Your task to perform on an android device: Open Amazon Image 0: 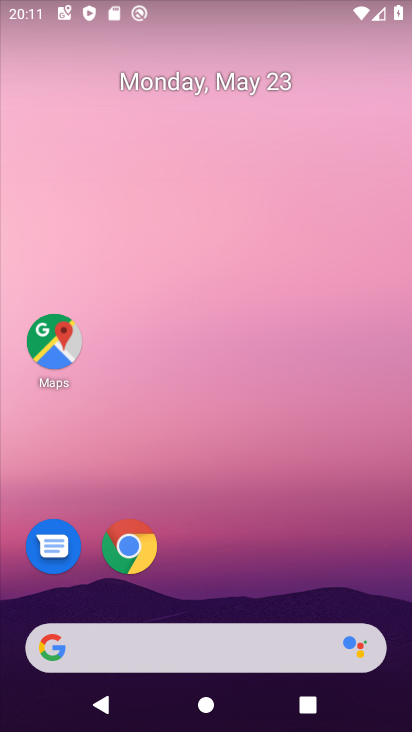
Step 0: drag from (389, 580) to (372, 238)
Your task to perform on an android device: Open Amazon Image 1: 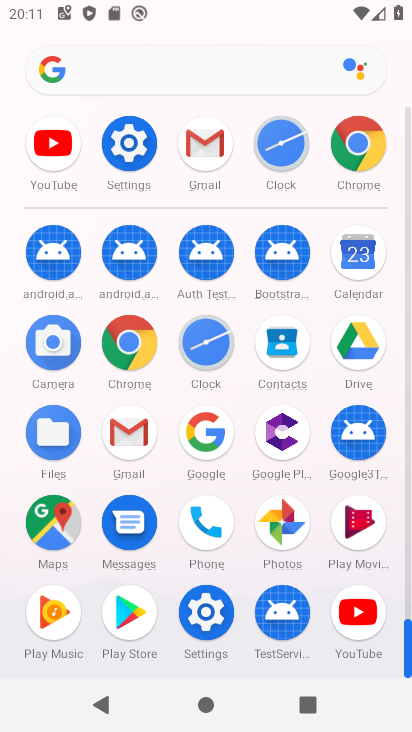
Step 1: click (133, 359)
Your task to perform on an android device: Open Amazon Image 2: 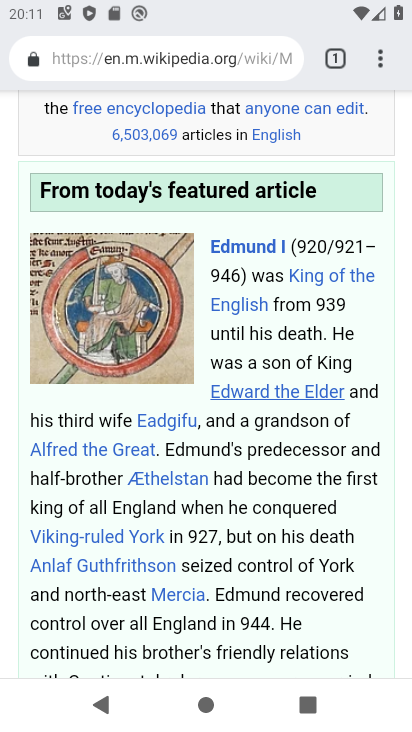
Step 2: press back button
Your task to perform on an android device: Open Amazon Image 3: 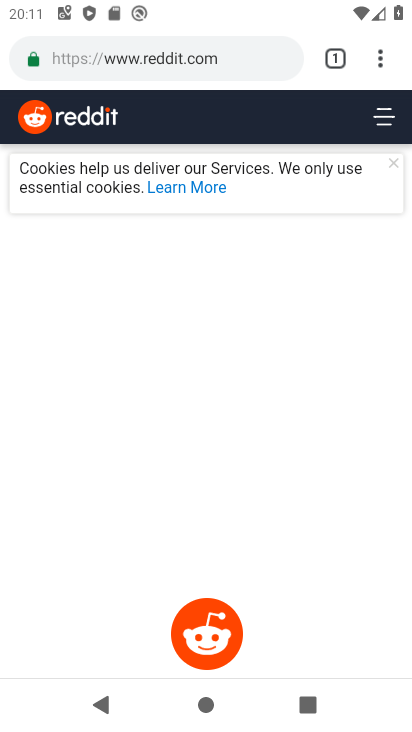
Step 3: press back button
Your task to perform on an android device: Open Amazon Image 4: 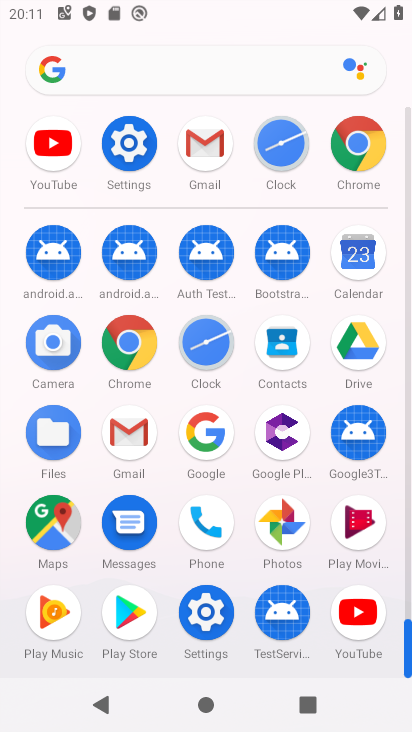
Step 4: click (137, 353)
Your task to perform on an android device: Open Amazon Image 5: 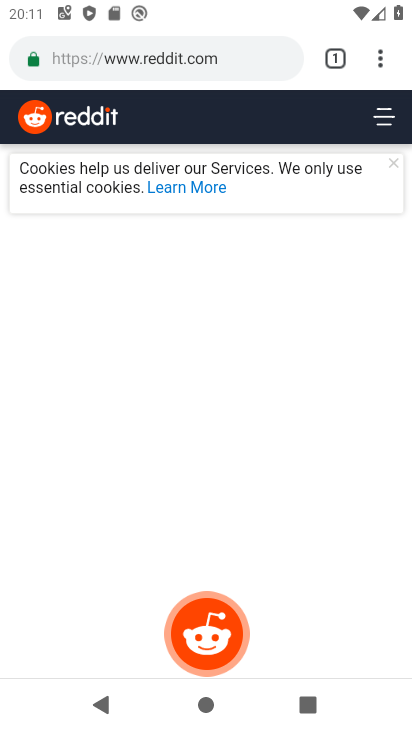
Step 5: click (202, 49)
Your task to perform on an android device: Open Amazon Image 6: 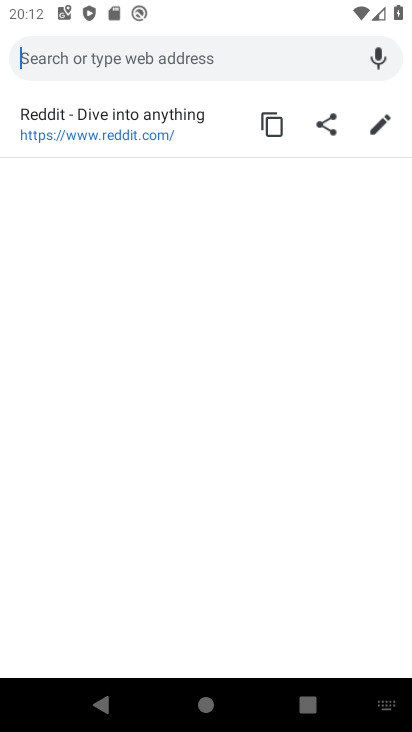
Step 6: type "amazon"
Your task to perform on an android device: Open Amazon Image 7: 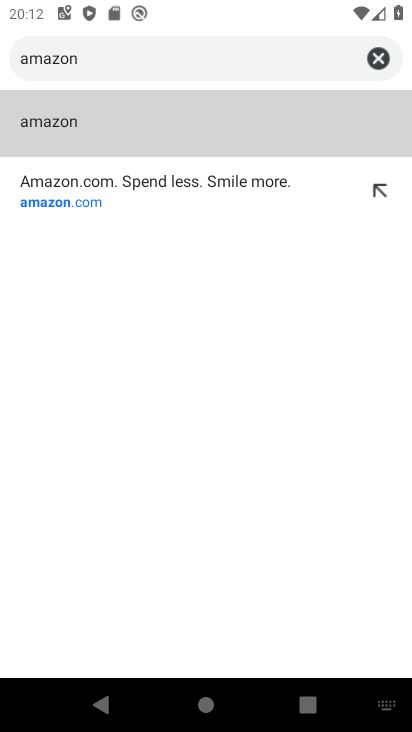
Step 7: click (139, 144)
Your task to perform on an android device: Open Amazon Image 8: 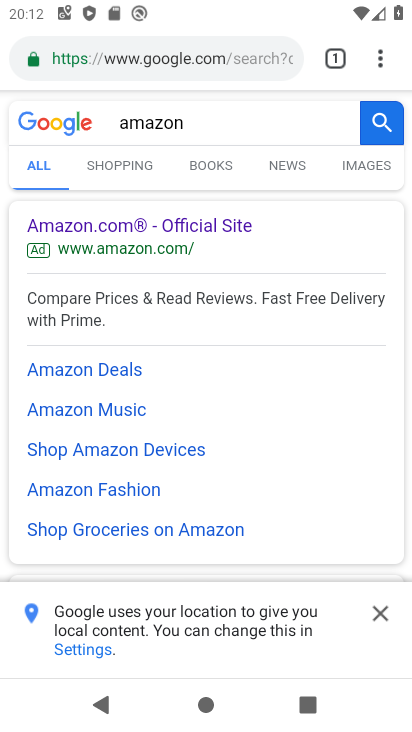
Step 8: click (207, 220)
Your task to perform on an android device: Open Amazon Image 9: 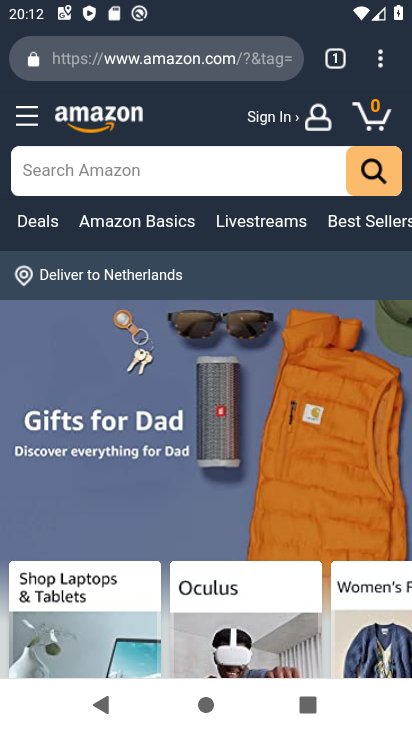
Step 9: task complete